Your task to perform on an android device: Open notification settings Image 0: 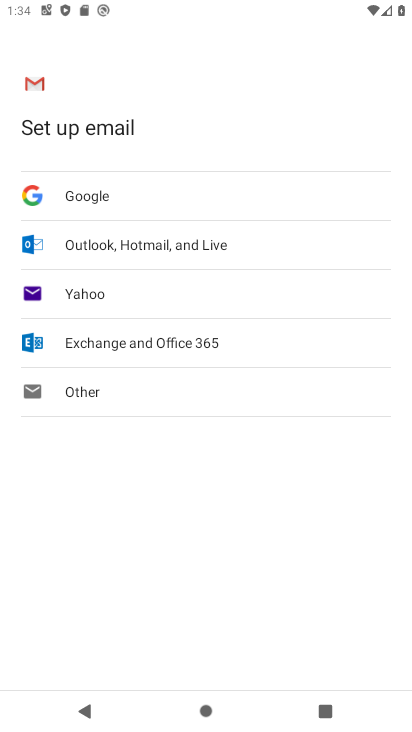
Step 0: press home button
Your task to perform on an android device: Open notification settings Image 1: 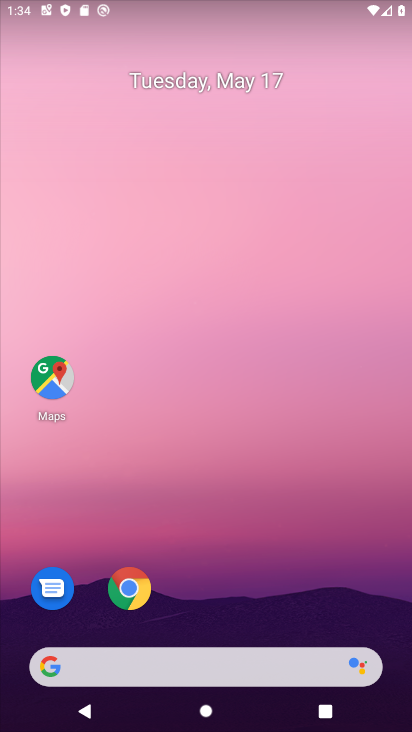
Step 1: drag from (203, 555) to (76, 119)
Your task to perform on an android device: Open notification settings Image 2: 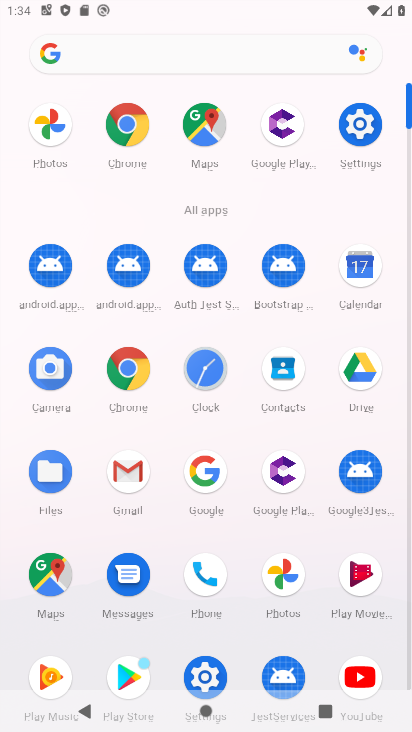
Step 2: click (365, 120)
Your task to perform on an android device: Open notification settings Image 3: 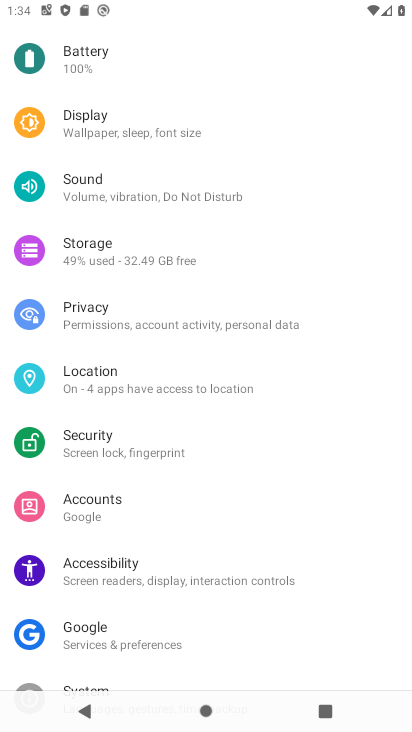
Step 3: drag from (167, 122) to (159, 397)
Your task to perform on an android device: Open notification settings Image 4: 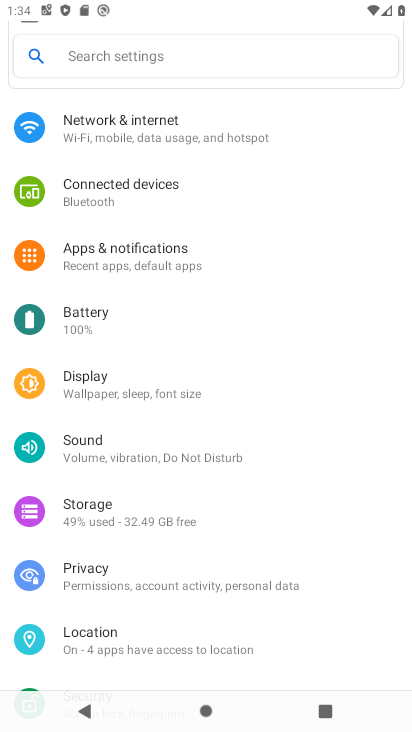
Step 4: click (130, 267)
Your task to perform on an android device: Open notification settings Image 5: 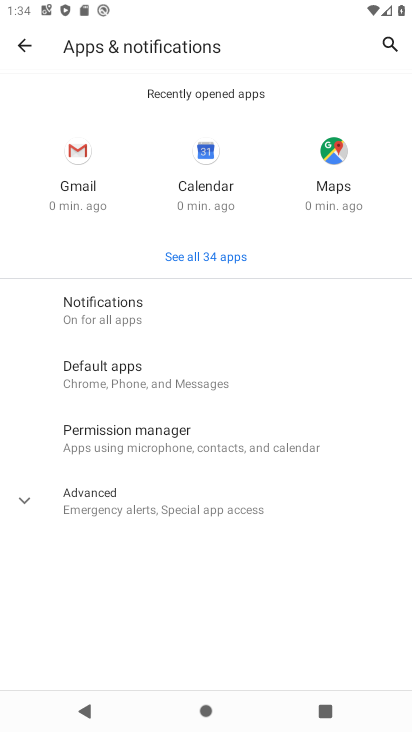
Step 5: click (108, 498)
Your task to perform on an android device: Open notification settings Image 6: 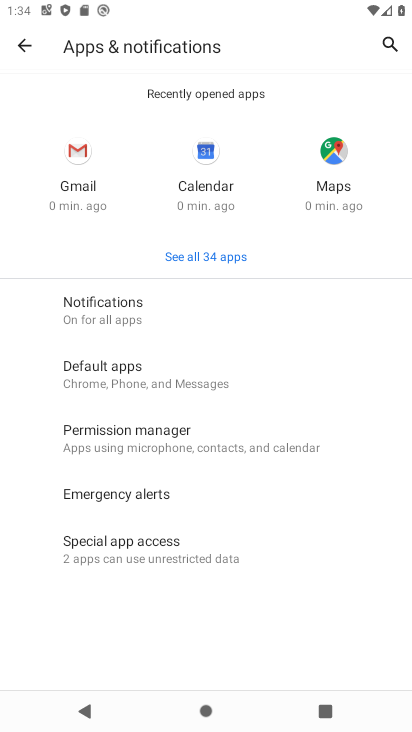
Step 6: click (118, 312)
Your task to perform on an android device: Open notification settings Image 7: 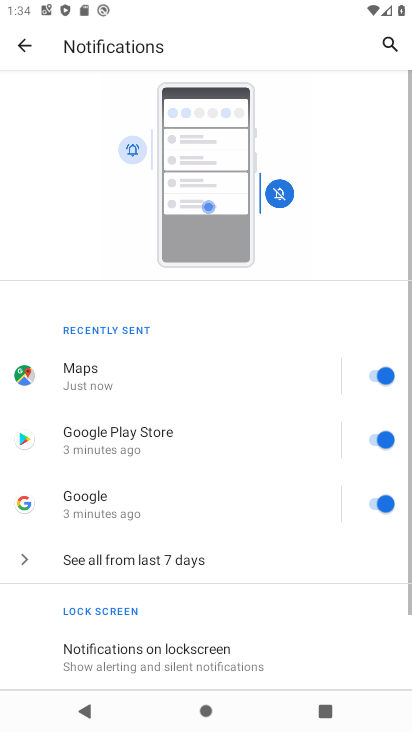
Step 7: drag from (76, 597) to (89, 117)
Your task to perform on an android device: Open notification settings Image 8: 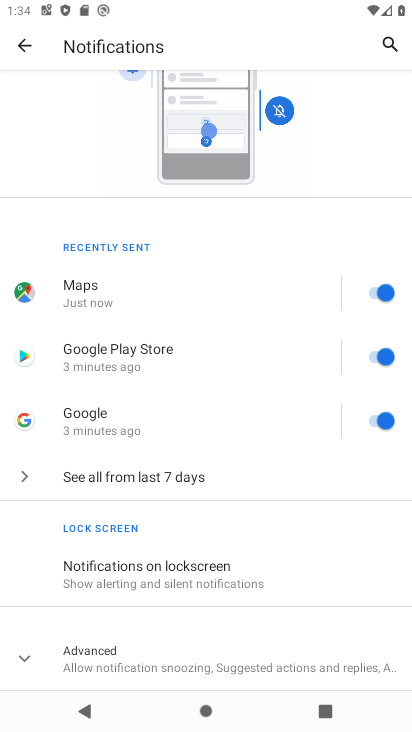
Step 8: click (132, 666)
Your task to perform on an android device: Open notification settings Image 9: 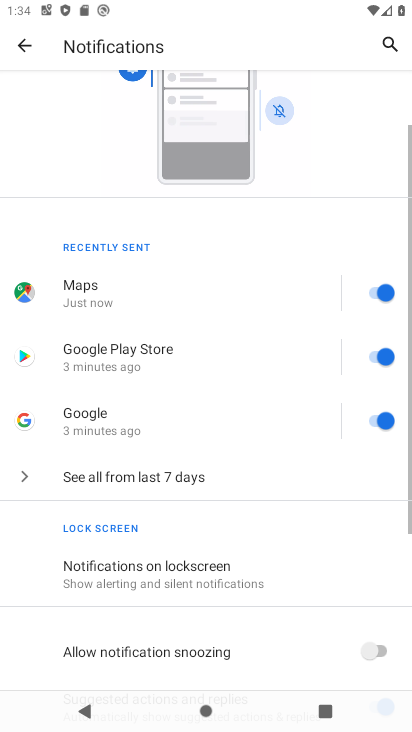
Step 9: task complete